Your task to perform on an android device: Open calendar and show me the first week of next month Image 0: 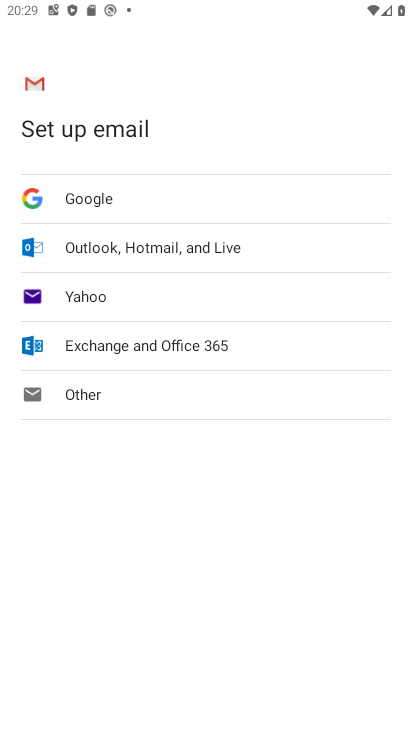
Step 0: press home button
Your task to perform on an android device: Open calendar and show me the first week of next month Image 1: 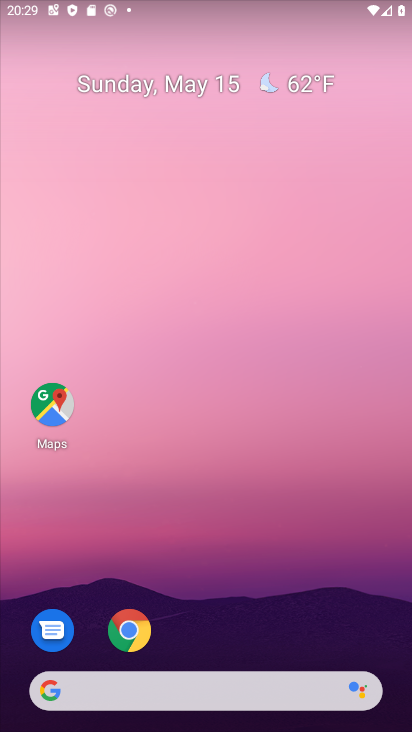
Step 1: drag from (238, 617) to (232, 73)
Your task to perform on an android device: Open calendar and show me the first week of next month Image 2: 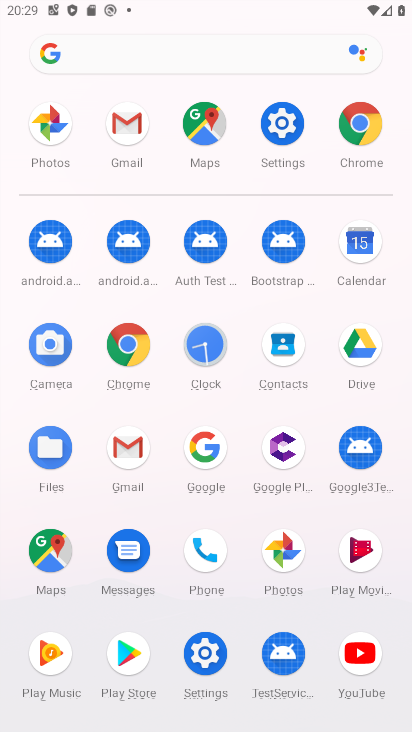
Step 2: click (363, 261)
Your task to perform on an android device: Open calendar and show me the first week of next month Image 3: 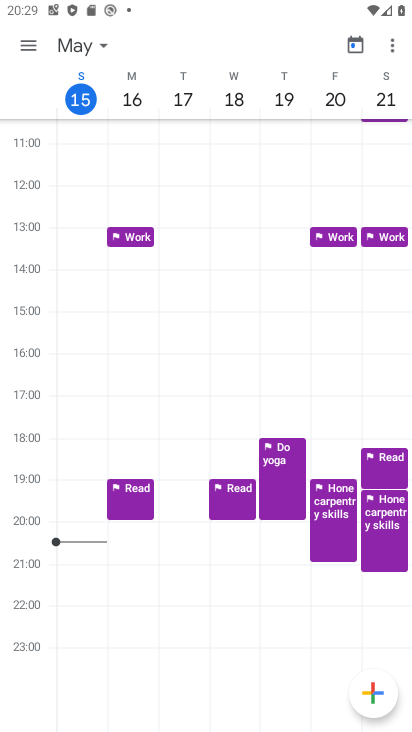
Step 3: task complete